Your task to perform on an android device: turn notification dots on Image 0: 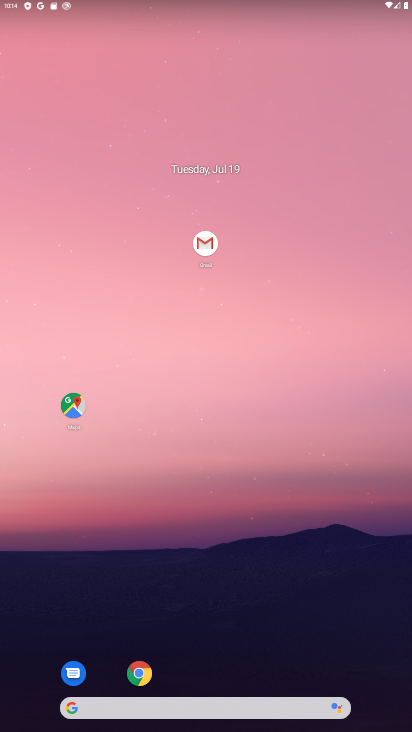
Step 0: drag from (284, 631) to (274, 170)
Your task to perform on an android device: turn notification dots on Image 1: 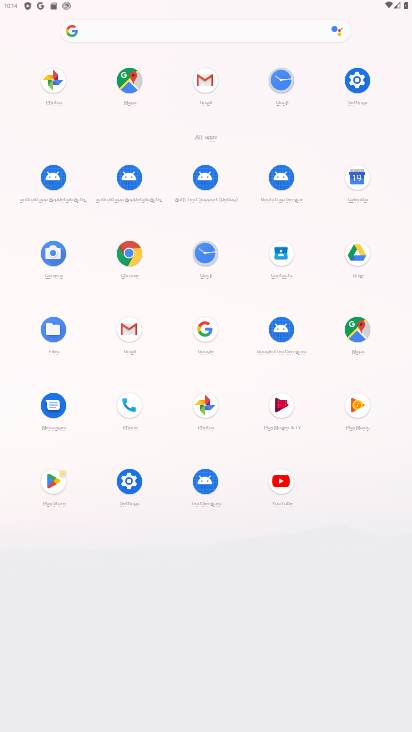
Step 1: click (358, 83)
Your task to perform on an android device: turn notification dots on Image 2: 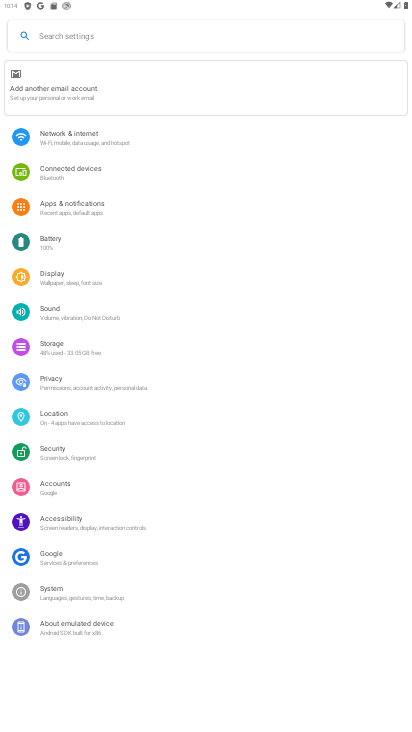
Step 2: click (60, 206)
Your task to perform on an android device: turn notification dots on Image 3: 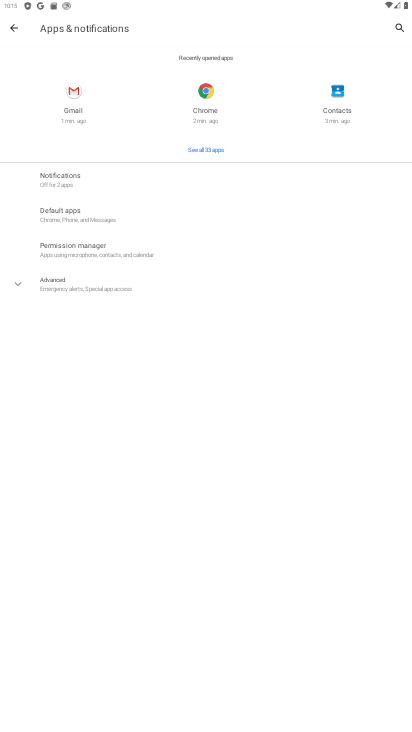
Step 3: click (86, 183)
Your task to perform on an android device: turn notification dots on Image 4: 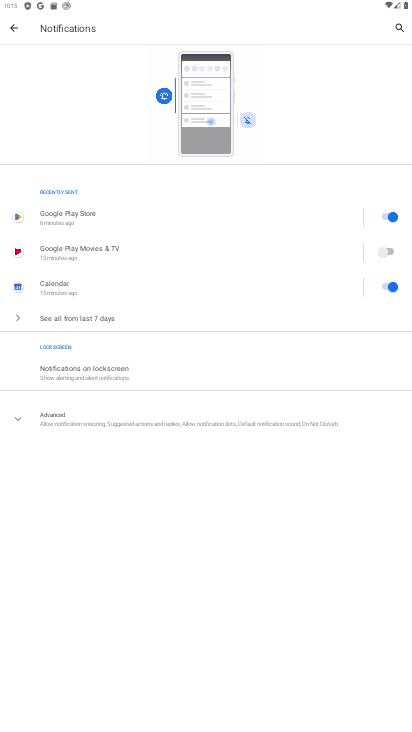
Step 4: click (108, 426)
Your task to perform on an android device: turn notification dots on Image 5: 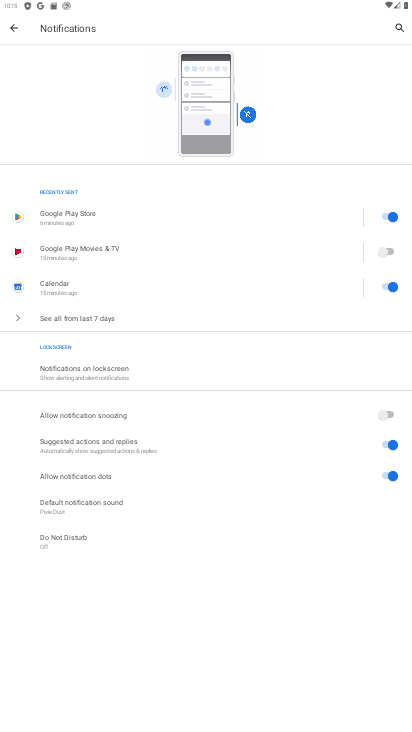
Step 5: task complete